Your task to perform on an android device: Go to Maps Image 0: 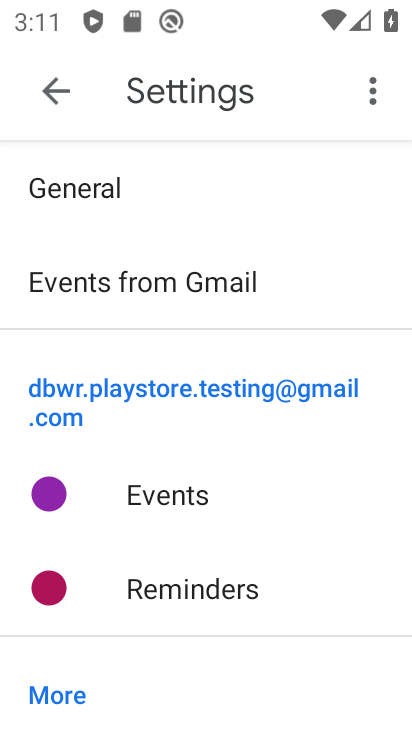
Step 0: press home button
Your task to perform on an android device: Go to Maps Image 1: 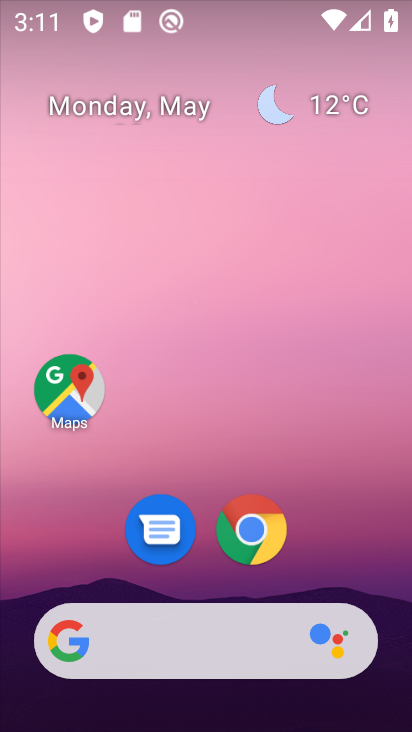
Step 1: click (75, 394)
Your task to perform on an android device: Go to Maps Image 2: 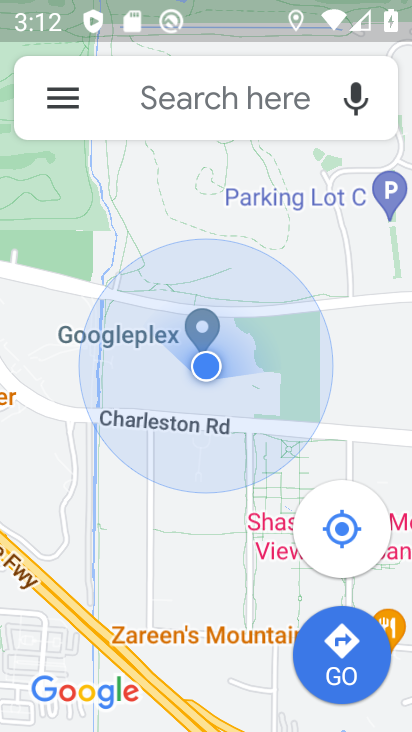
Step 2: task complete